Your task to perform on an android device: turn off sleep mode Image 0: 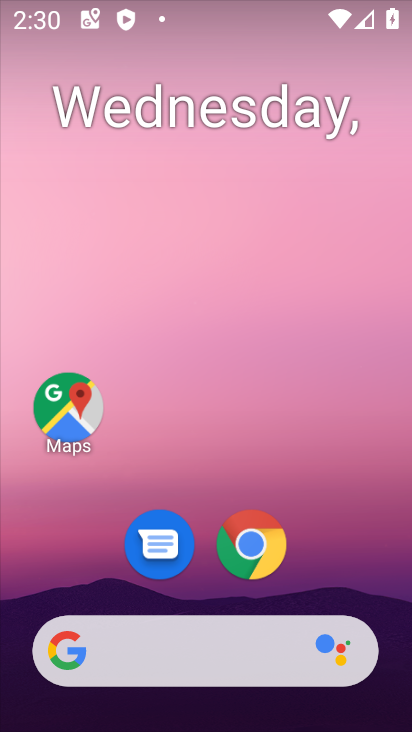
Step 0: drag from (377, 580) to (359, 209)
Your task to perform on an android device: turn off sleep mode Image 1: 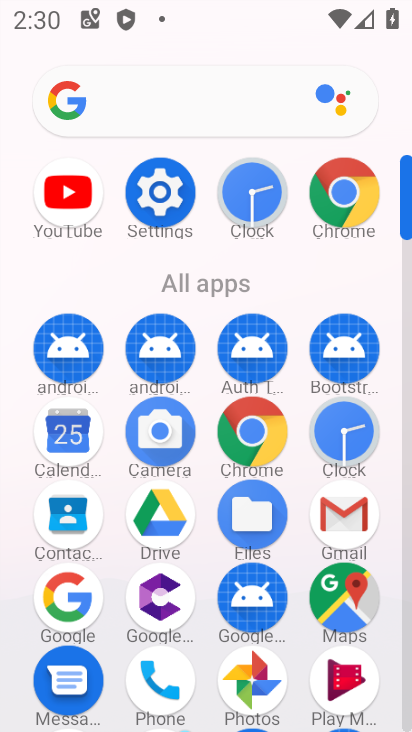
Step 1: click (152, 201)
Your task to perform on an android device: turn off sleep mode Image 2: 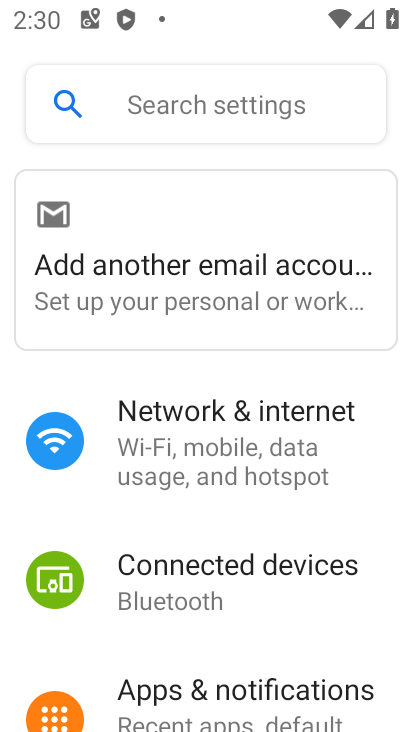
Step 2: click (167, 115)
Your task to perform on an android device: turn off sleep mode Image 3: 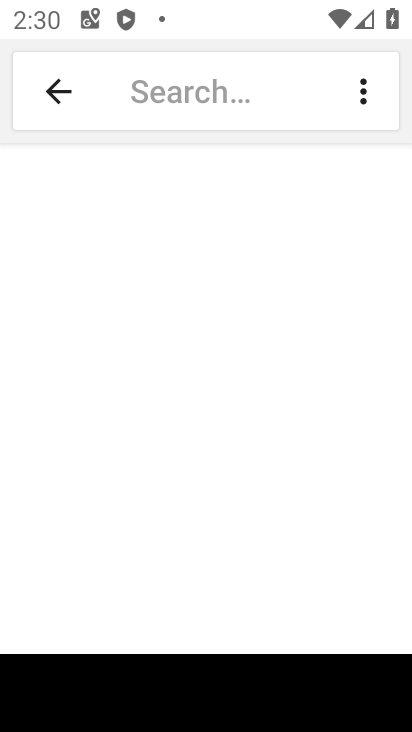
Step 3: type "sleep mode"
Your task to perform on an android device: turn off sleep mode Image 4: 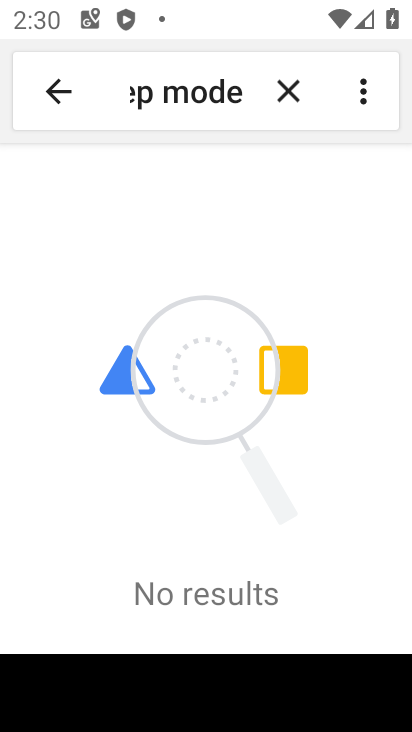
Step 4: task complete